Your task to perform on an android device: turn off location Image 0: 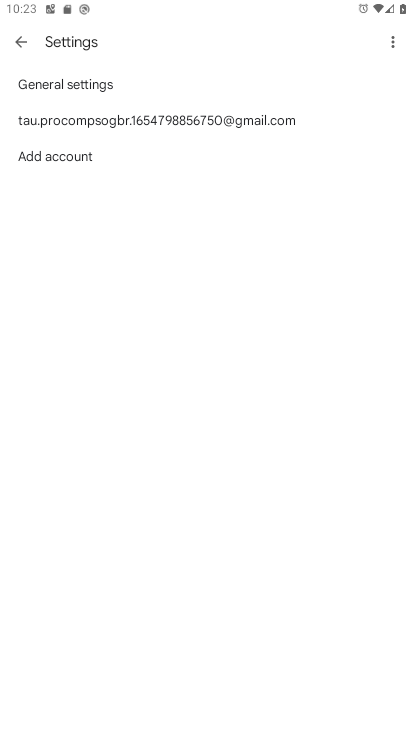
Step 0: press home button
Your task to perform on an android device: turn off location Image 1: 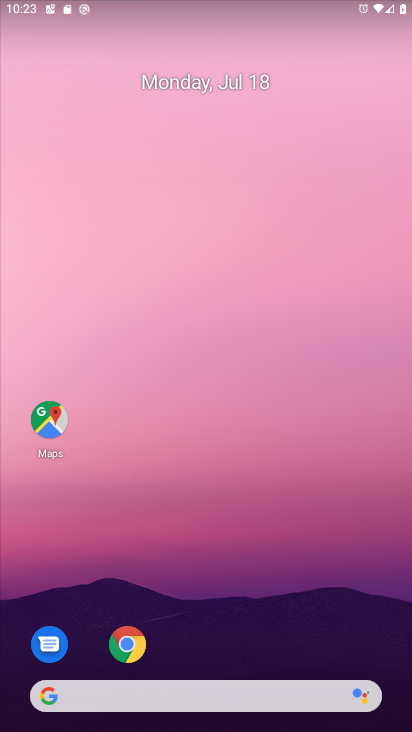
Step 1: drag from (302, 618) to (190, 12)
Your task to perform on an android device: turn off location Image 2: 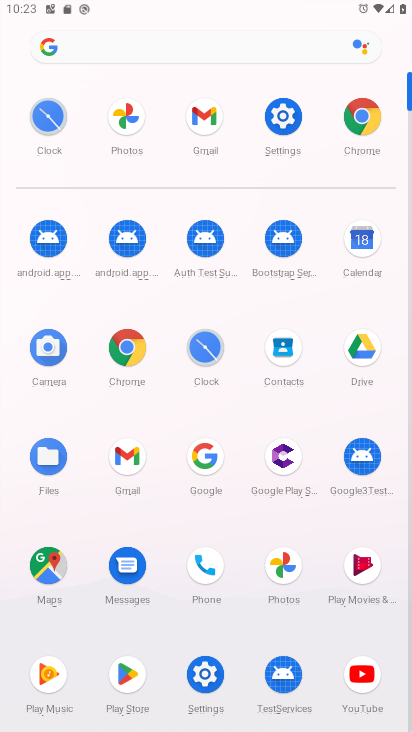
Step 2: click (289, 135)
Your task to perform on an android device: turn off location Image 3: 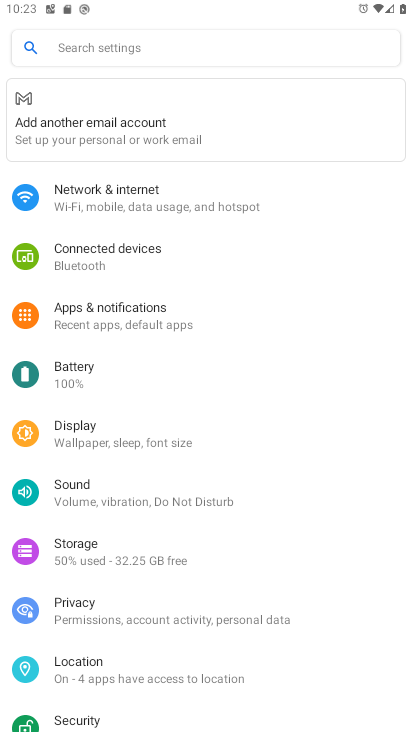
Step 3: click (226, 669)
Your task to perform on an android device: turn off location Image 4: 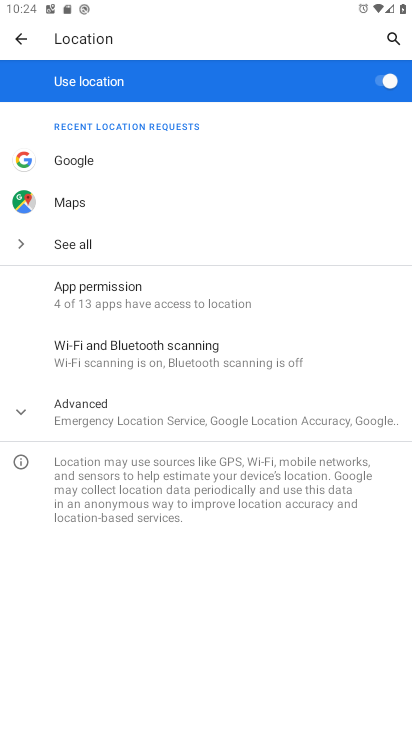
Step 4: click (160, 435)
Your task to perform on an android device: turn off location Image 5: 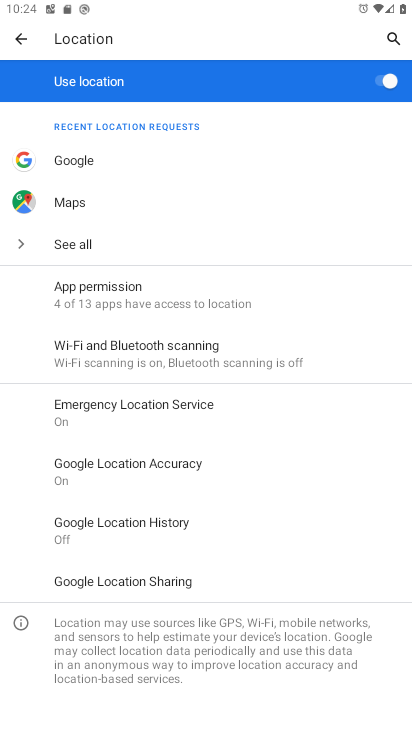
Step 5: task complete